Your task to perform on an android device: toggle improve location accuracy Image 0: 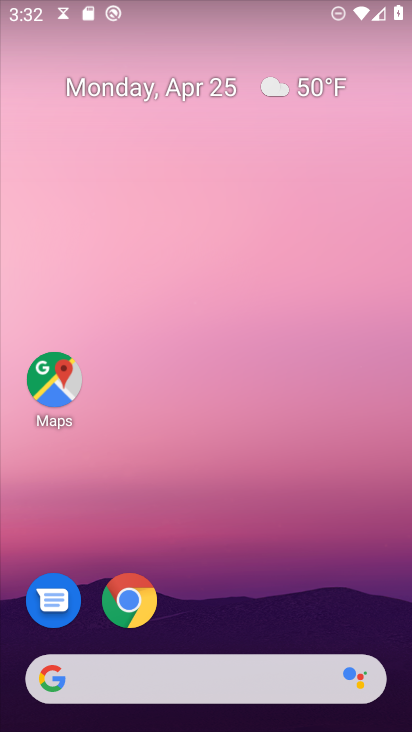
Step 0: drag from (244, 646) to (217, 115)
Your task to perform on an android device: toggle improve location accuracy Image 1: 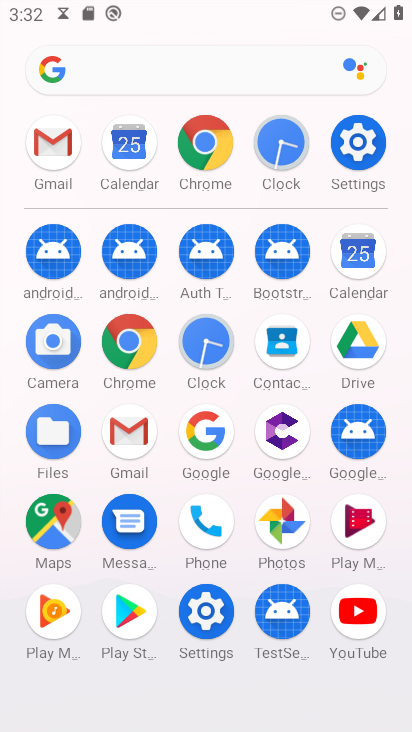
Step 1: click (217, 612)
Your task to perform on an android device: toggle improve location accuracy Image 2: 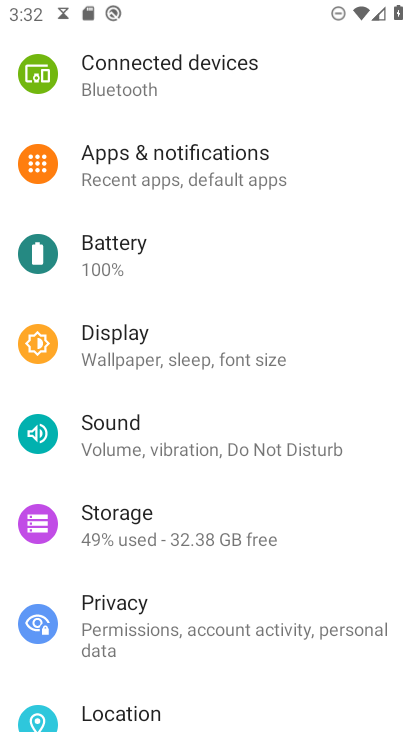
Step 2: drag from (214, 584) to (224, 336)
Your task to perform on an android device: toggle improve location accuracy Image 3: 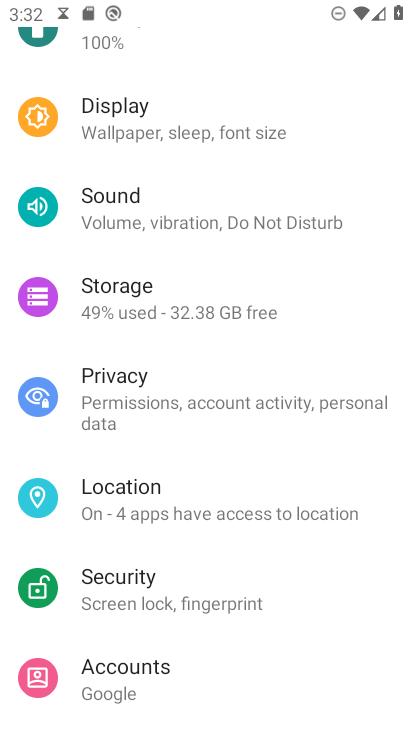
Step 3: click (163, 482)
Your task to perform on an android device: toggle improve location accuracy Image 4: 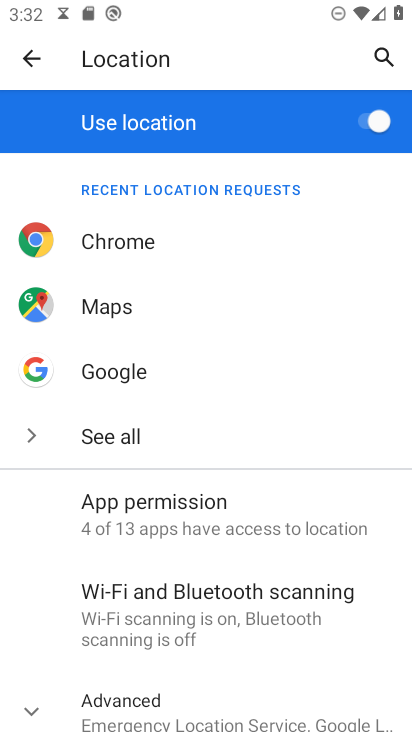
Step 4: click (161, 703)
Your task to perform on an android device: toggle improve location accuracy Image 5: 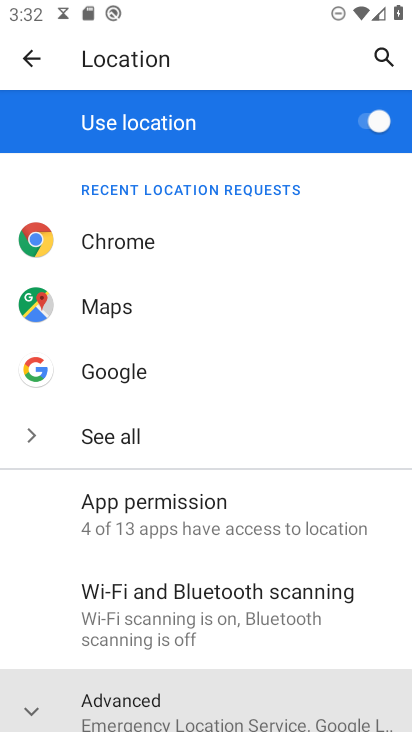
Step 5: drag from (175, 650) to (169, 148)
Your task to perform on an android device: toggle improve location accuracy Image 6: 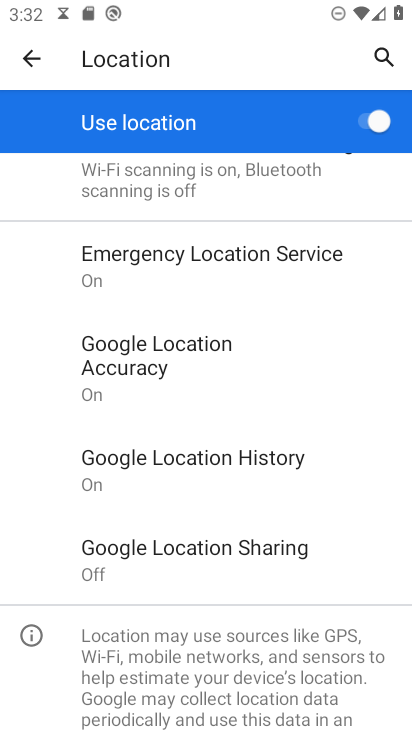
Step 6: click (189, 371)
Your task to perform on an android device: toggle improve location accuracy Image 7: 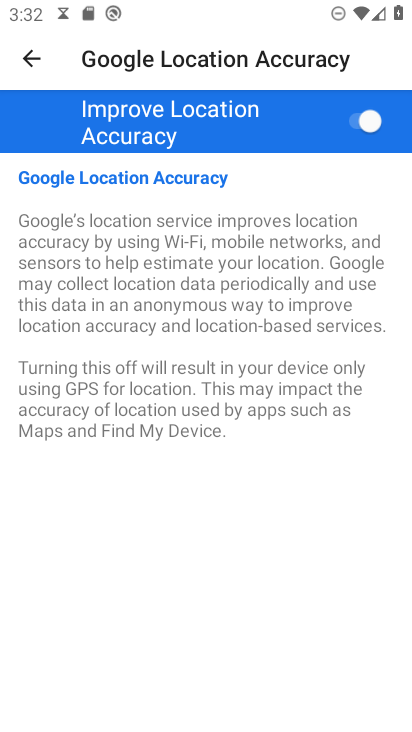
Step 7: click (363, 124)
Your task to perform on an android device: toggle improve location accuracy Image 8: 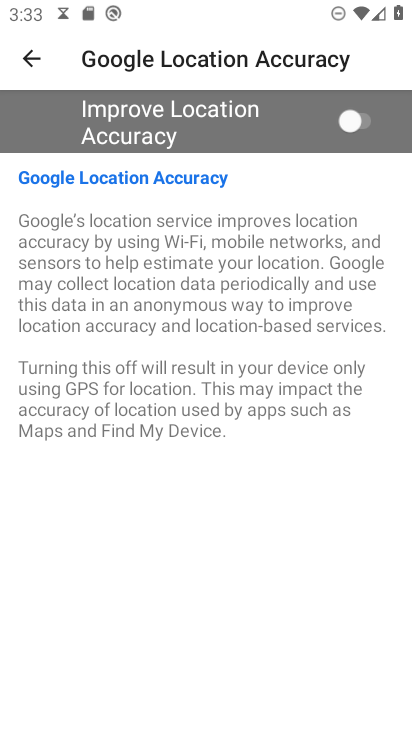
Step 8: task complete